Your task to perform on an android device: Go to notification settings Image 0: 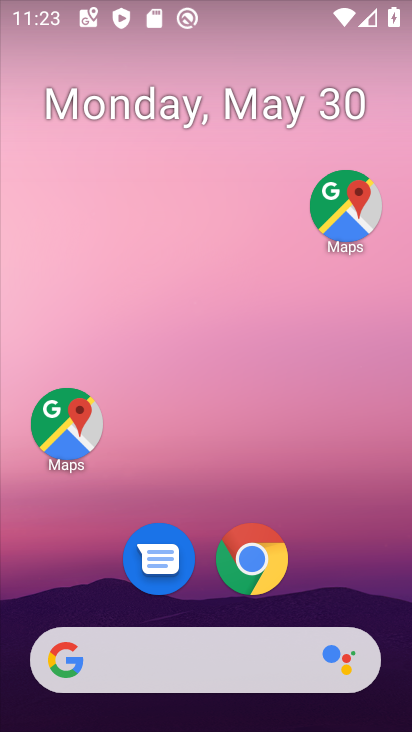
Step 0: drag from (314, 542) to (233, 54)
Your task to perform on an android device: Go to notification settings Image 1: 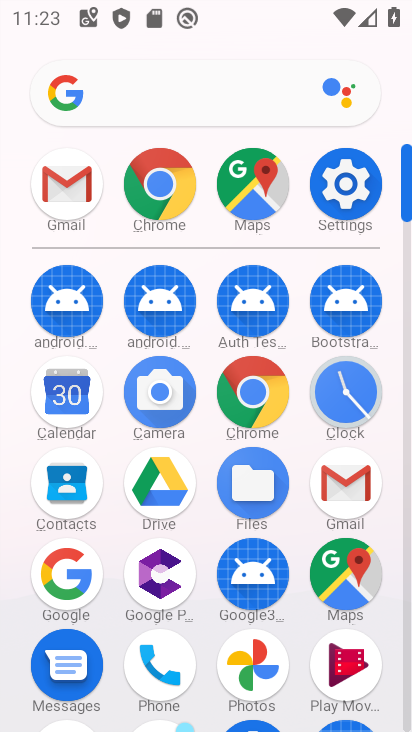
Step 1: click (329, 181)
Your task to perform on an android device: Go to notification settings Image 2: 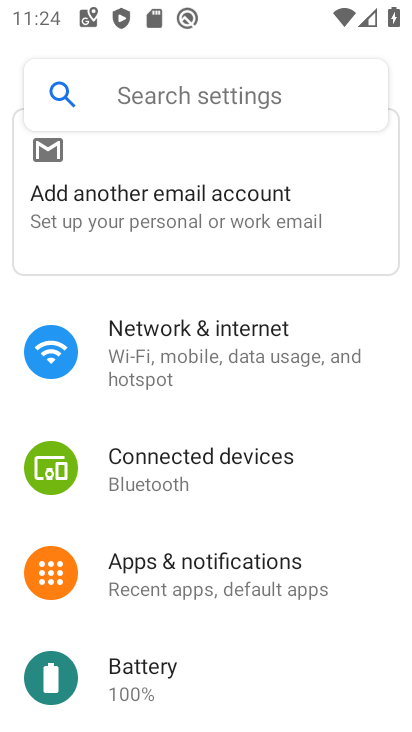
Step 2: click (186, 573)
Your task to perform on an android device: Go to notification settings Image 3: 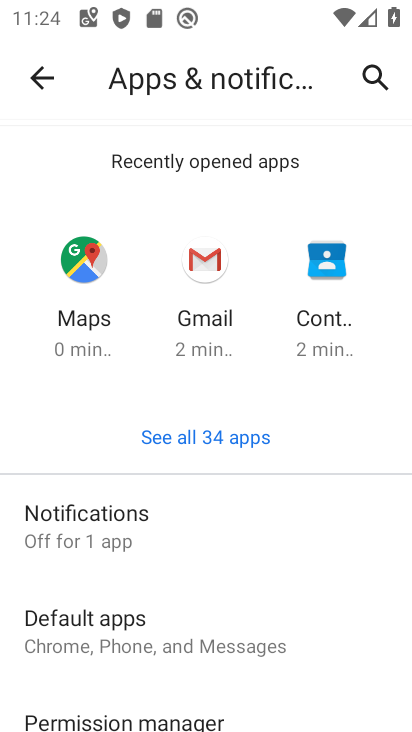
Step 3: click (162, 521)
Your task to perform on an android device: Go to notification settings Image 4: 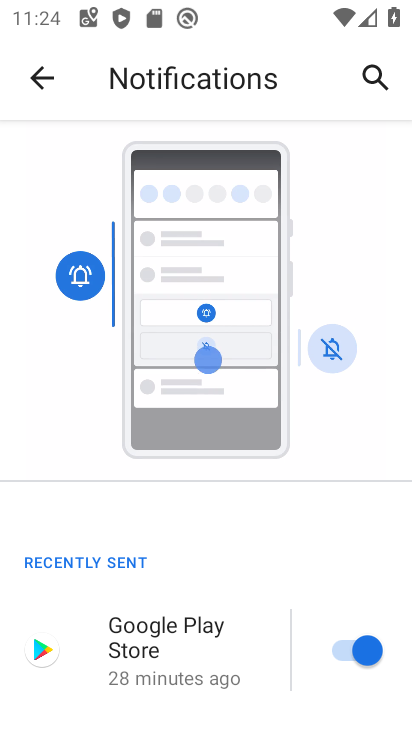
Step 4: task complete